Your task to perform on an android device: Go to calendar. Show me events next week Image 0: 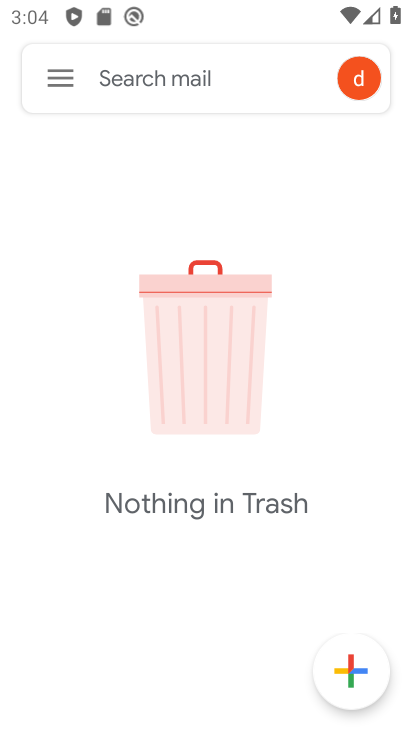
Step 0: click (230, 581)
Your task to perform on an android device: Go to calendar. Show me events next week Image 1: 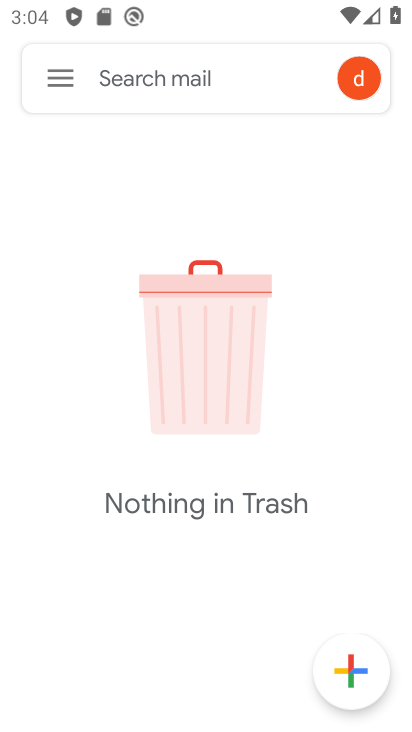
Step 1: press home button
Your task to perform on an android device: Go to calendar. Show me events next week Image 2: 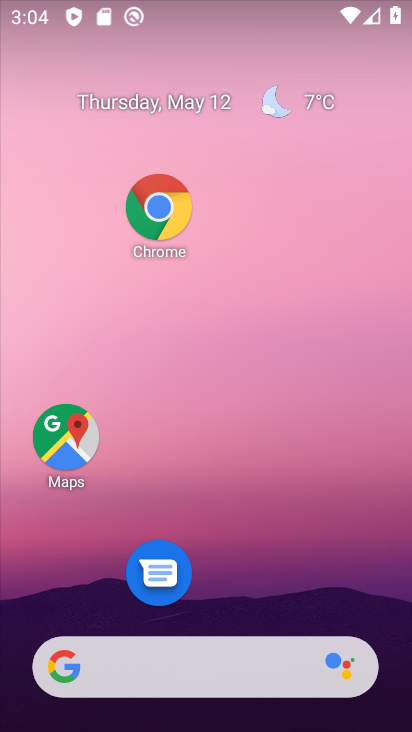
Step 2: drag from (184, 601) to (253, 27)
Your task to perform on an android device: Go to calendar. Show me events next week Image 3: 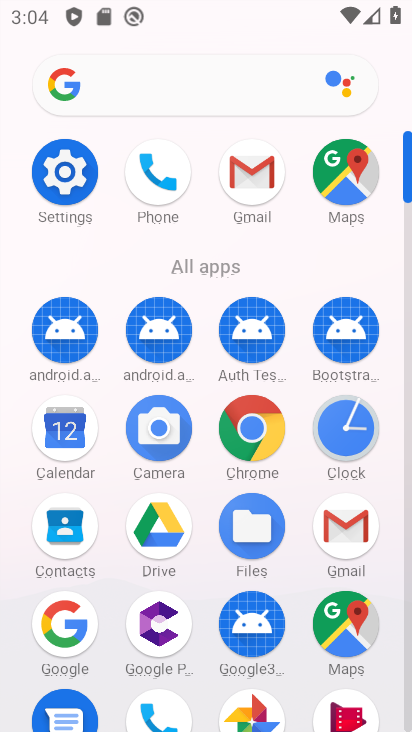
Step 3: click (76, 430)
Your task to perform on an android device: Go to calendar. Show me events next week Image 4: 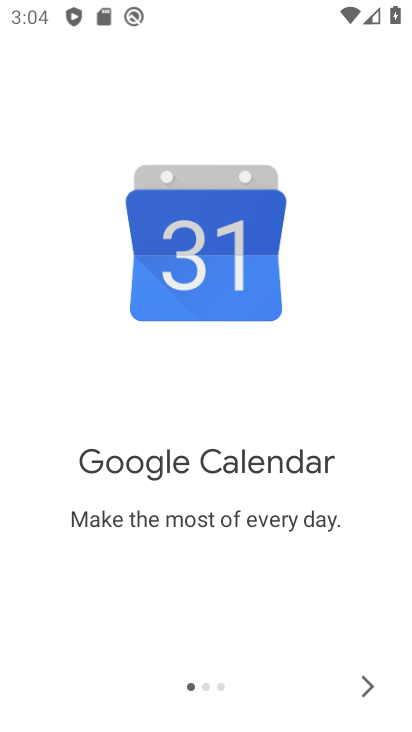
Step 4: click (374, 681)
Your task to perform on an android device: Go to calendar. Show me events next week Image 5: 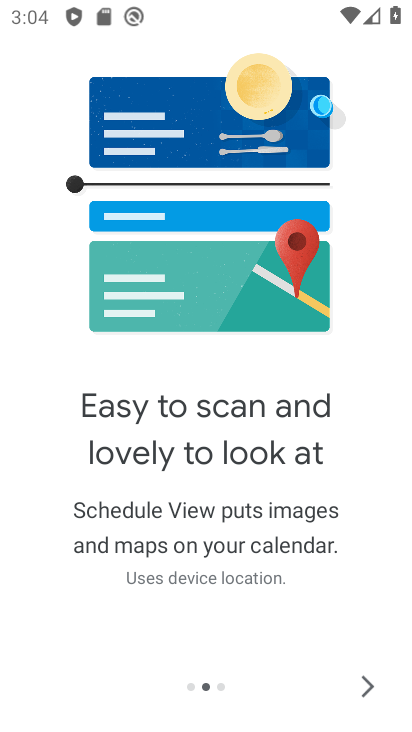
Step 5: click (374, 684)
Your task to perform on an android device: Go to calendar. Show me events next week Image 6: 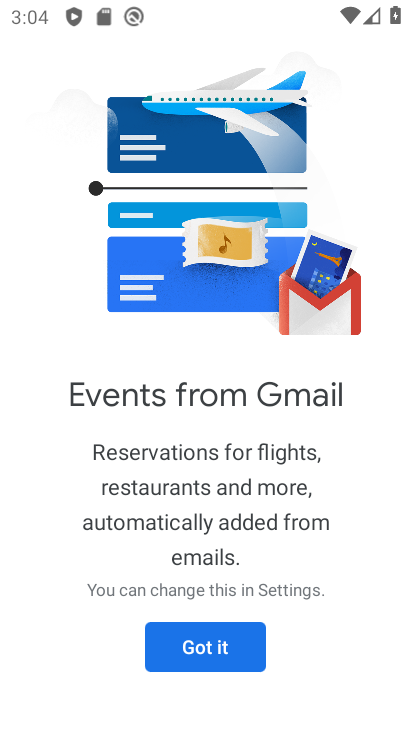
Step 6: click (211, 649)
Your task to perform on an android device: Go to calendar. Show me events next week Image 7: 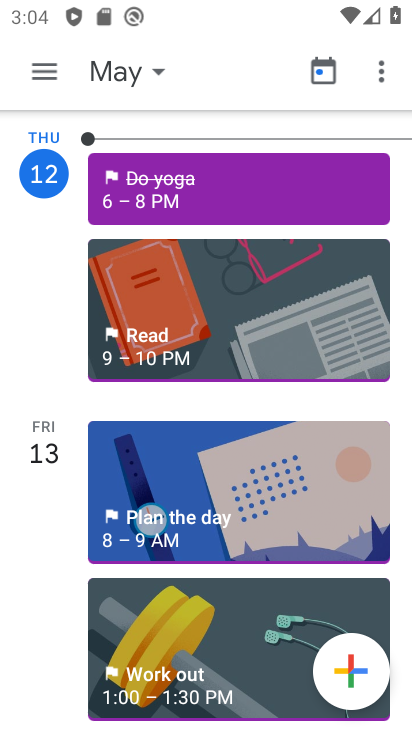
Step 7: click (44, 71)
Your task to perform on an android device: Go to calendar. Show me events next week Image 8: 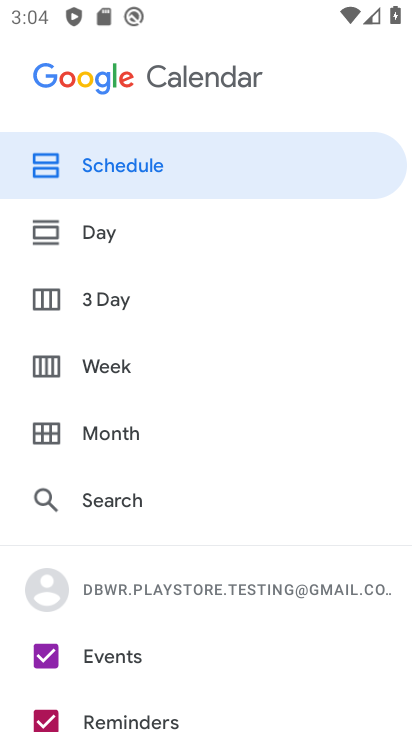
Step 8: click (132, 377)
Your task to perform on an android device: Go to calendar. Show me events next week Image 9: 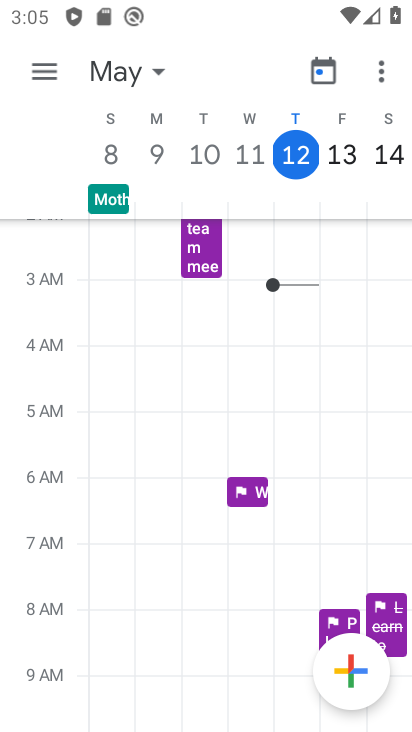
Step 9: task complete